Your task to perform on an android device: refresh tabs in the chrome app Image 0: 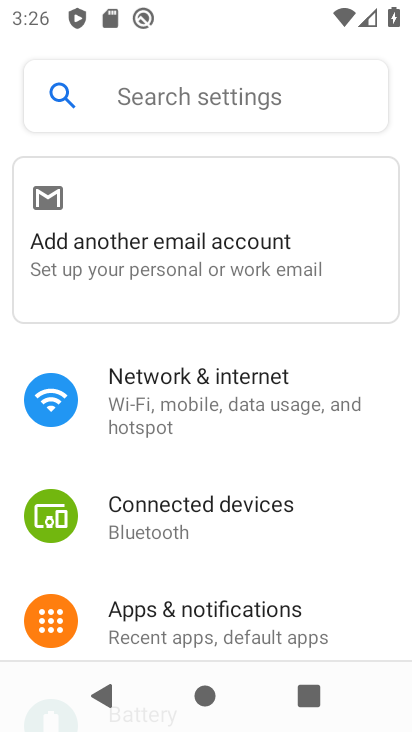
Step 0: press home button
Your task to perform on an android device: refresh tabs in the chrome app Image 1: 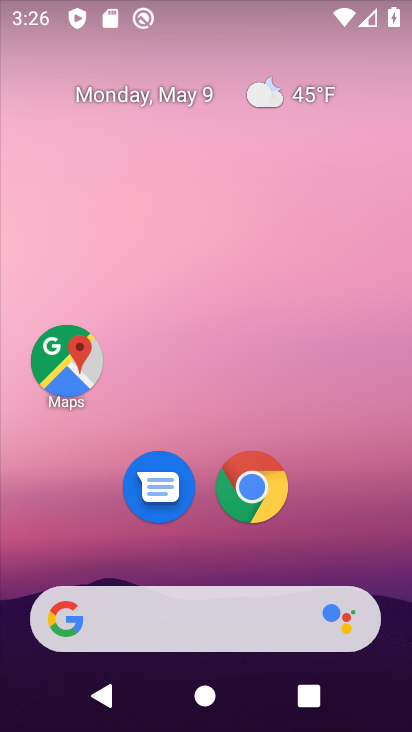
Step 1: click (255, 498)
Your task to perform on an android device: refresh tabs in the chrome app Image 2: 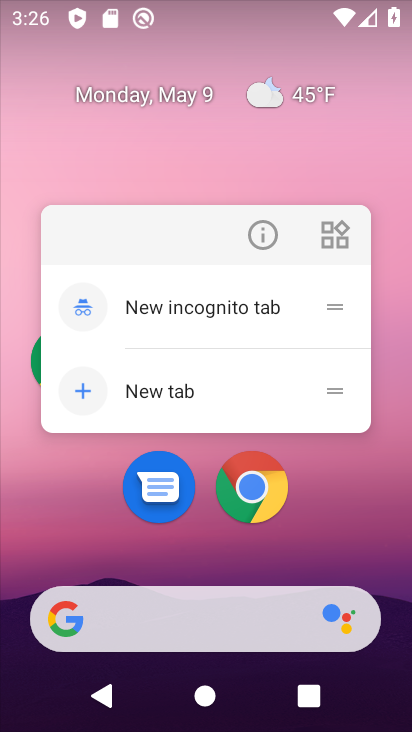
Step 2: click (255, 498)
Your task to perform on an android device: refresh tabs in the chrome app Image 3: 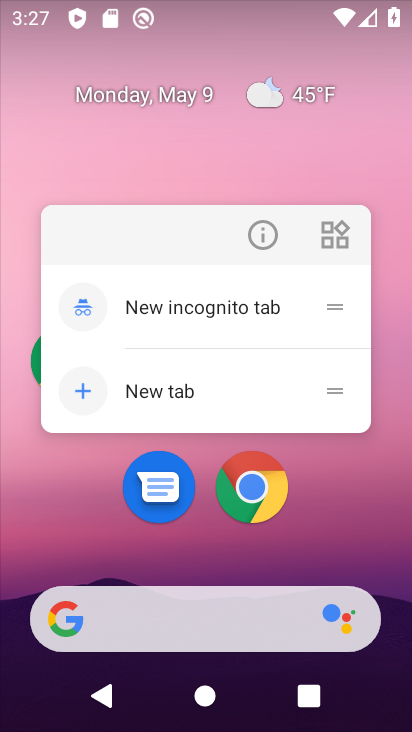
Step 3: click (225, 570)
Your task to perform on an android device: refresh tabs in the chrome app Image 4: 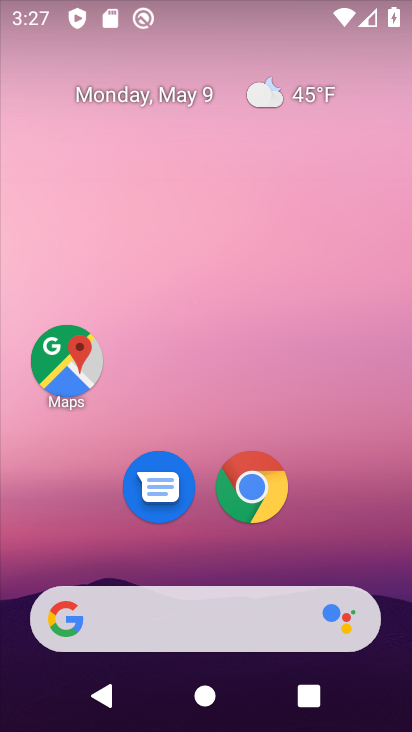
Step 4: click (246, 499)
Your task to perform on an android device: refresh tabs in the chrome app Image 5: 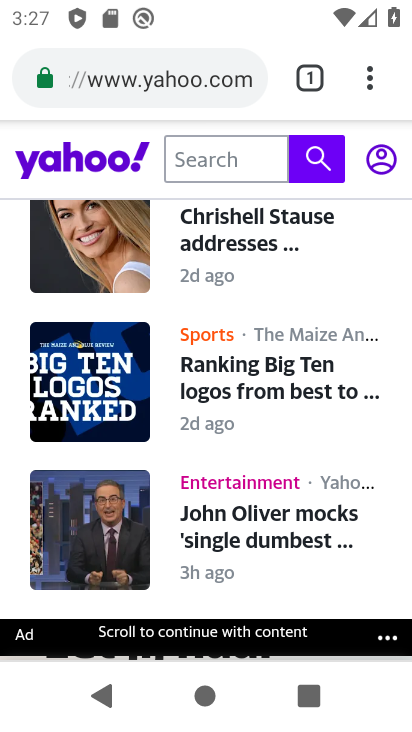
Step 5: click (374, 73)
Your task to perform on an android device: refresh tabs in the chrome app Image 6: 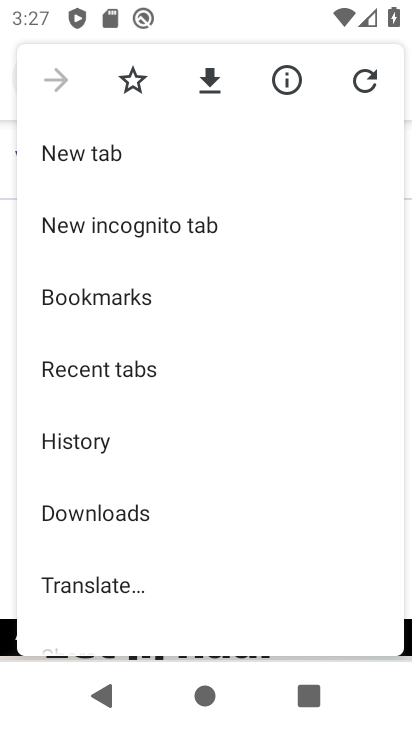
Step 6: click (360, 79)
Your task to perform on an android device: refresh tabs in the chrome app Image 7: 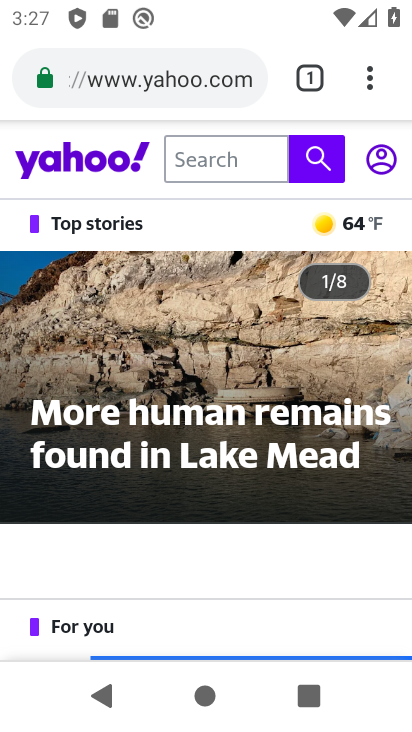
Step 7: task complete